Your task to perform on an android device: Go to Android settings Image 0: 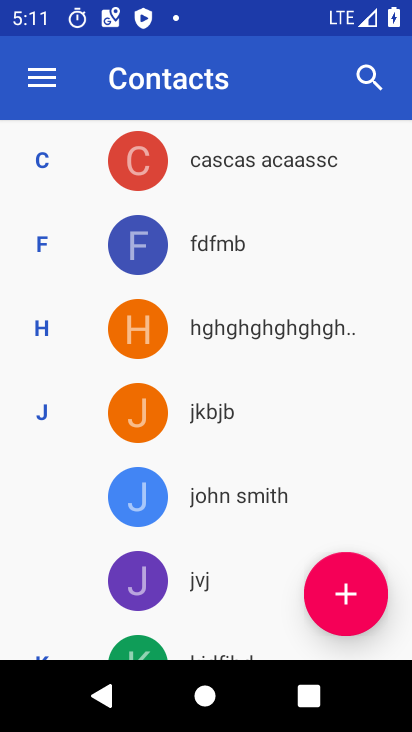
Step 0: press back button
Your task to perform on an android device: Go to Android settings Image 1: 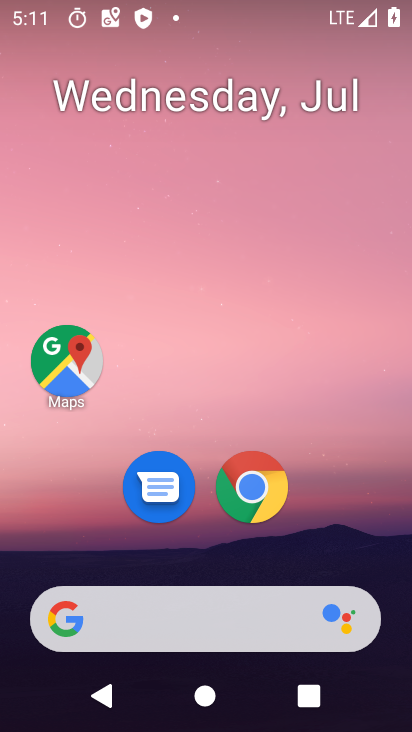
Step 1: drag from (177, 550) to (277, 11)
Your task to perform on an android device: Go to Android settings Image 2: 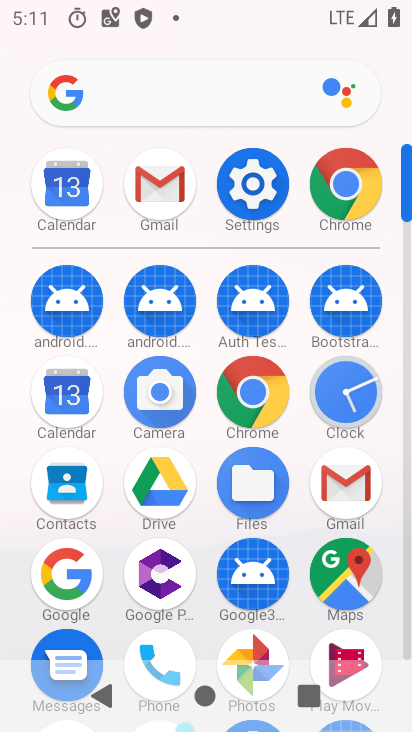
Step 2: click (257, 196)
Your task to perform on an android device: Go to Android settings Image 3: 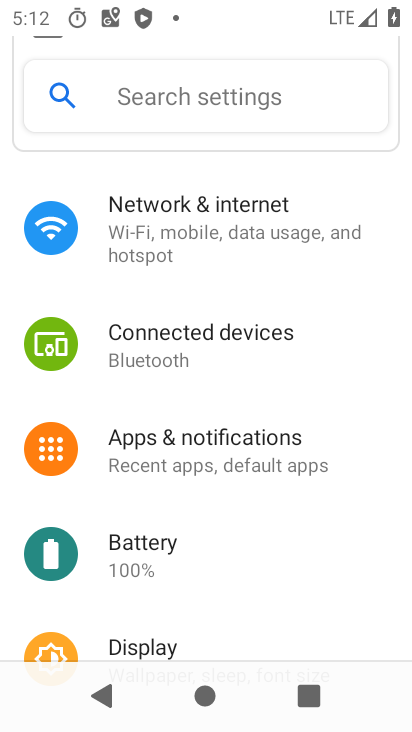
Step 3: drag from (149, 622) to (251, 185)
Your task to perform on an android device: Go to Android settings Image 4: 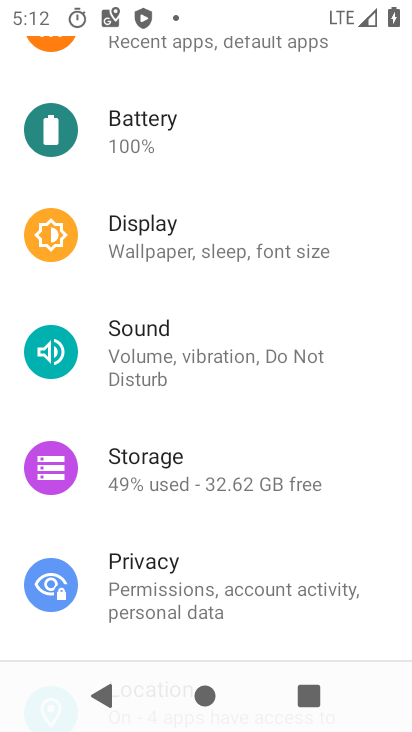
Step 4: drag from (252, 134) to (249, 721)
Your task to perform on an android device: Go to Android settings Image 5: 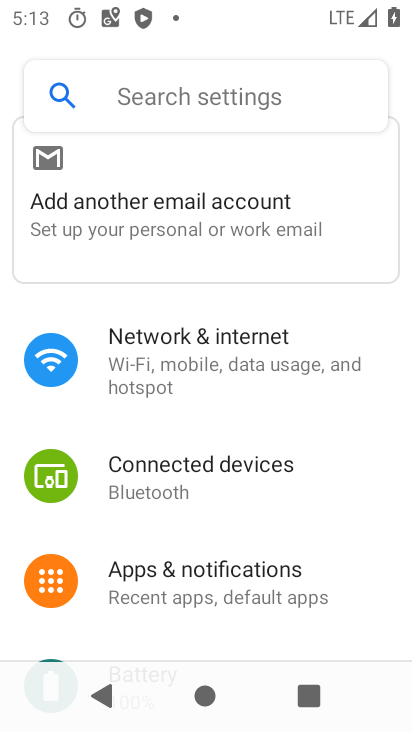
Step 5: drag from (218, 565) to (255, 94)
Your task to perform on an android device: Go to Android settings Image 6: 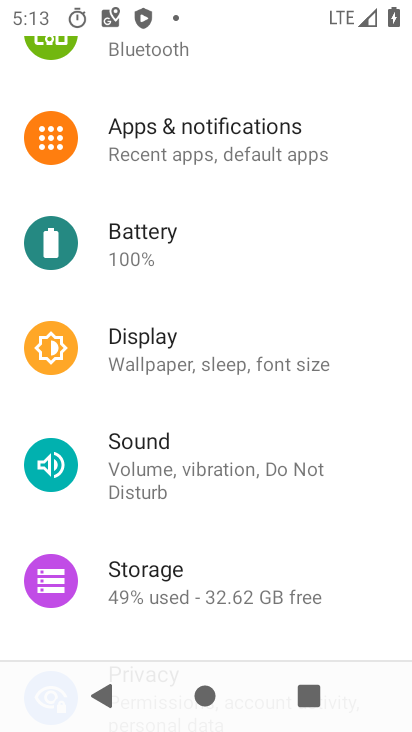
Step 6: drag from (237, 134) to (193, 727)
Your task to perform on an android device: Go to Android settings Image 7: 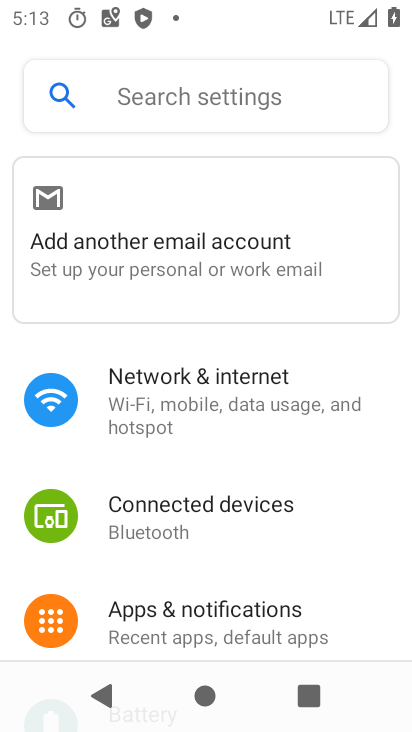
Step 7: drag from (184, 578) to (265, 55)
Your task to perform on an android device: Go to Android settings Image 8: 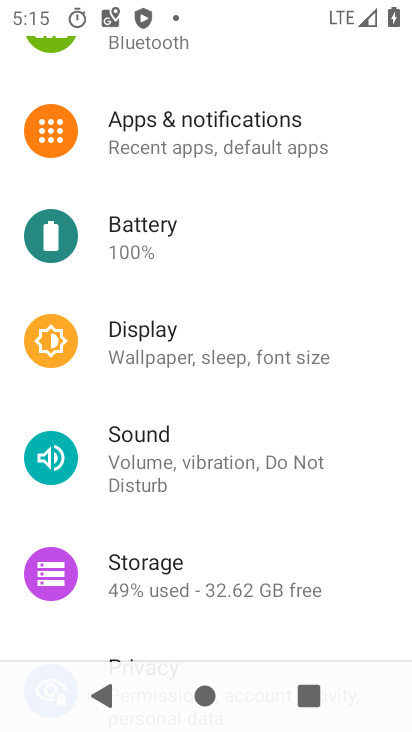
Step 8: drag from (211, 572) to (277, 24)
Your task to perform on an android device: Go to Android settings Image 9: 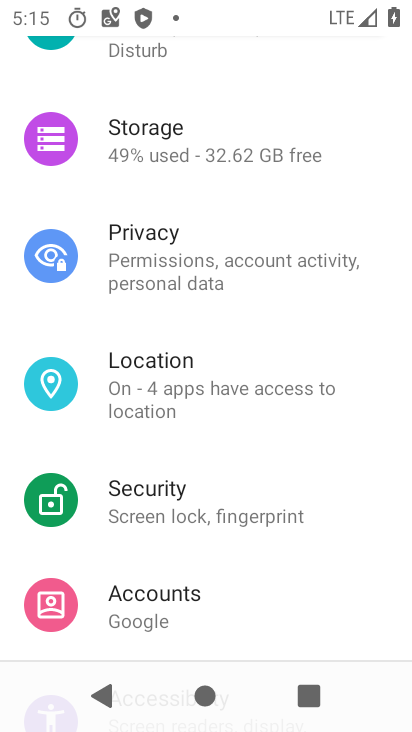
Step 9: drag from (201, 550) to (237, 3)
Your task to perform on an android device: Go to Android settings Image 10: 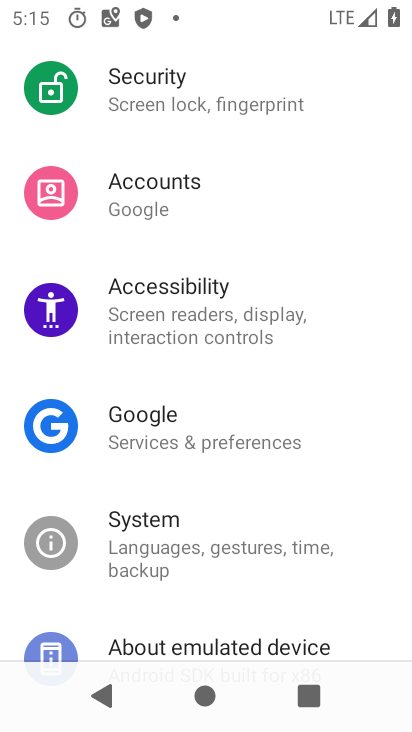
Step 10: drag from (188, 475) to (268, 1)
Your task to perform on an android device: Go to Android settings Image 11: 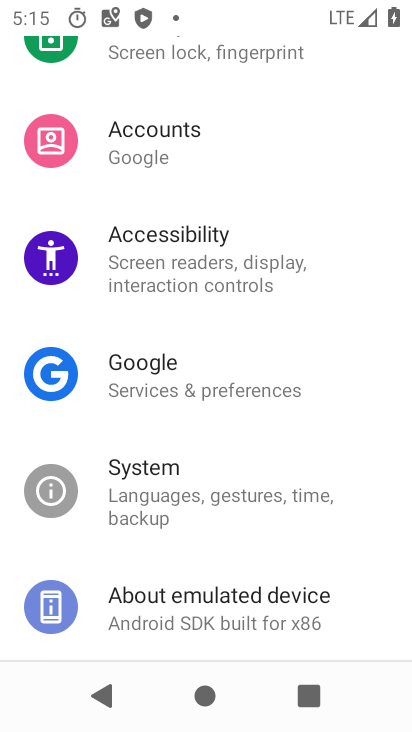
Step 11: click (222, 621)
Your task to perform on an android device: Go to Android settings Image 12: 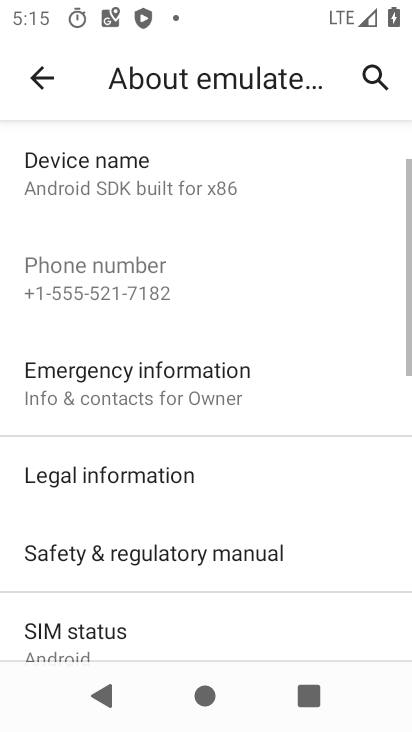
Step 12: drag from (193, 590) to (261, 18)
Your task to perform on an android device: Go to Android settings Image 13: 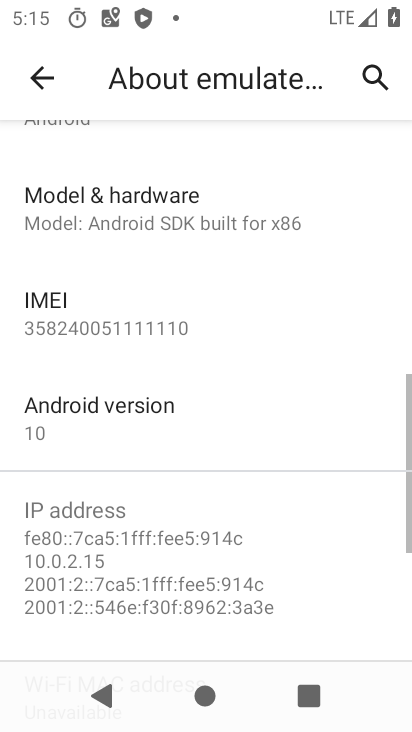
Step 13: click (135, 417)
Your task to perform on an android device: Go to Android settings Image 14: 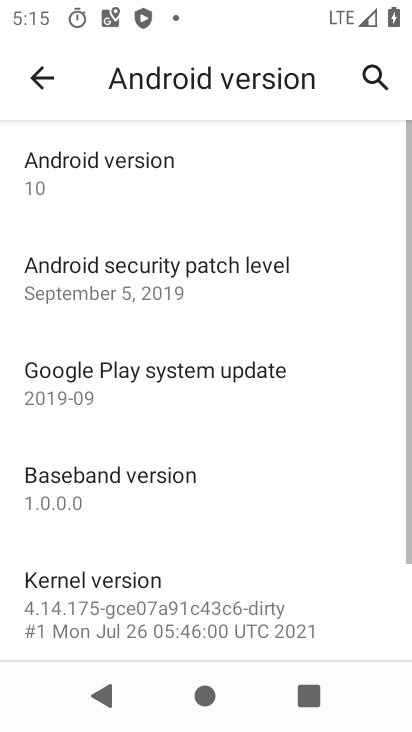
Step 14: task complete